Your task to perform on an android device: Go to Google maps Image 0: 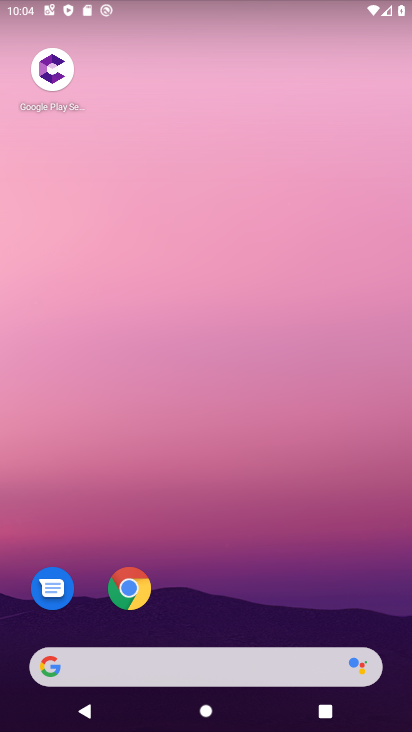
Step 0: drag from (124, 472) to (398, 336)
Your task to perform on an android device: Go to Google maps Image 1: 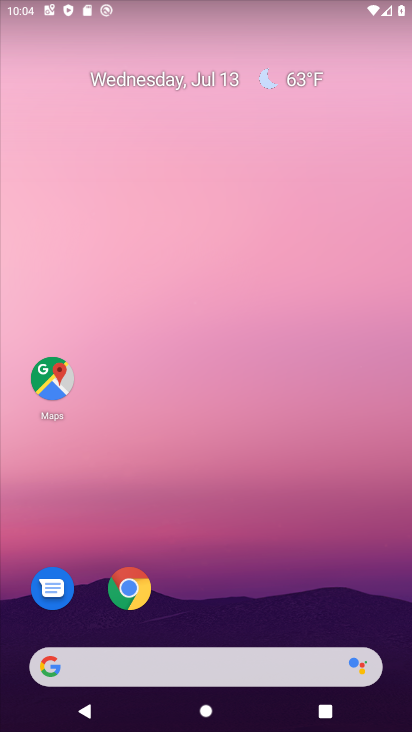
Step 1: click (92, 404)
Your task to perform on an android device: Go to Google maps Image 2: 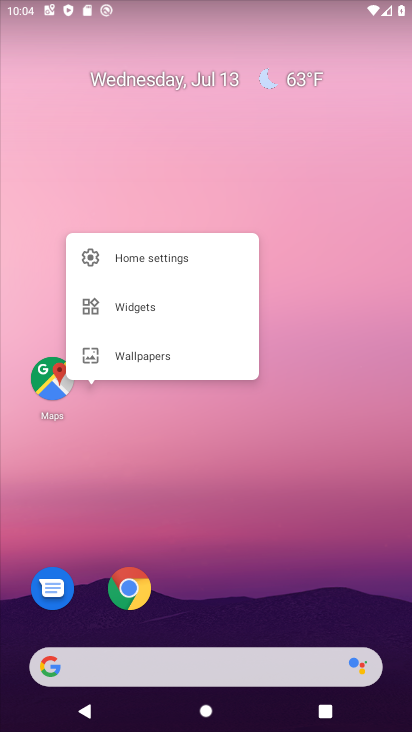
Step 2: click (56, 376)
Your task to perform on an android device: Go to Google maps Image 3: 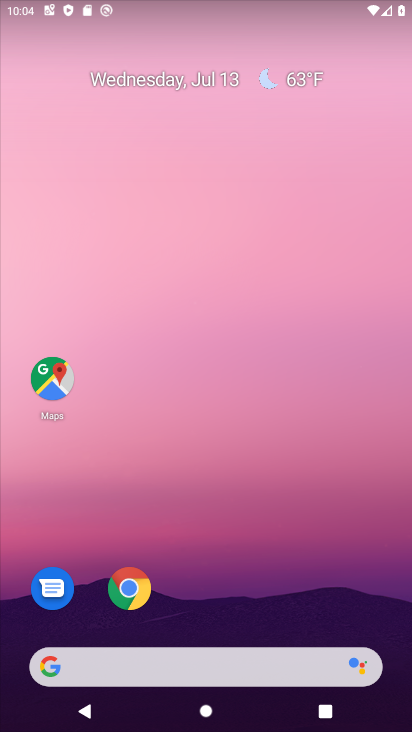
Step 3: click (61, 376)
Your task to perform on an android device: Go to Google maps Image 4: 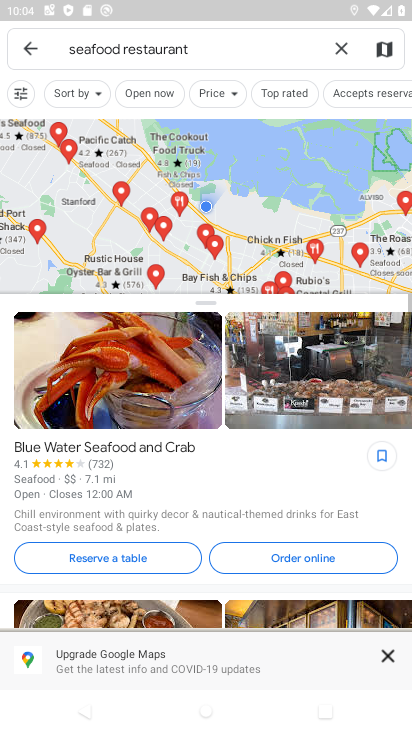
Step 4: click (346, 48)
Your task to perform on an android device: Go to Google maps Image 5: 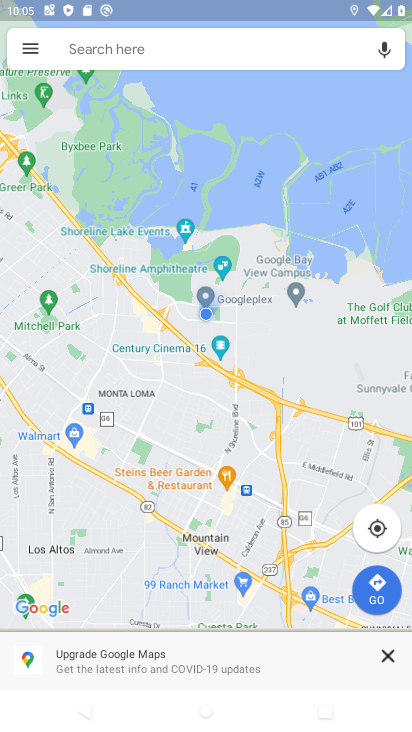
Step 5: task complete